Your task to perform on an android device: open chrome and create a bookmark for the current page Image 0: 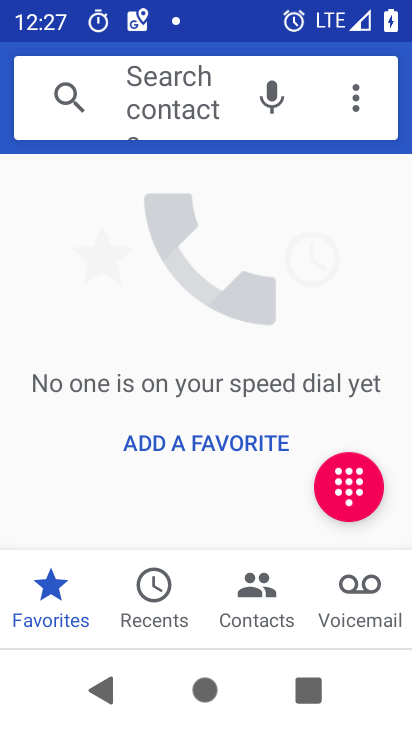
Step 0: press home button
Your task to perform on an android device: open chrome and create a bookmark for the current page Image 1: 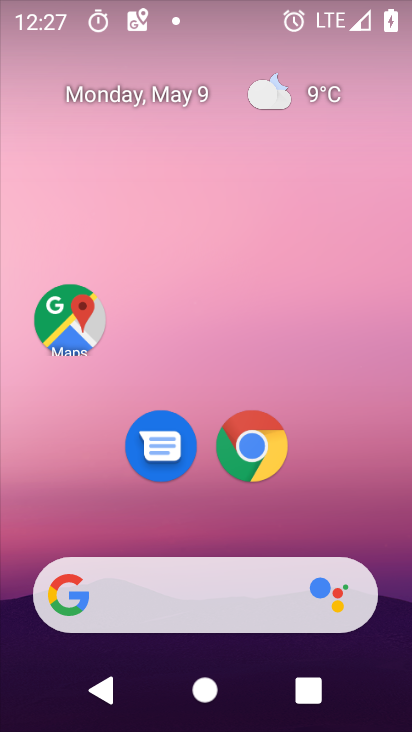
Step 1: click (256, 446)
Your task to perform on an android device: open chrome and create a bookmark for the current page Image 2: 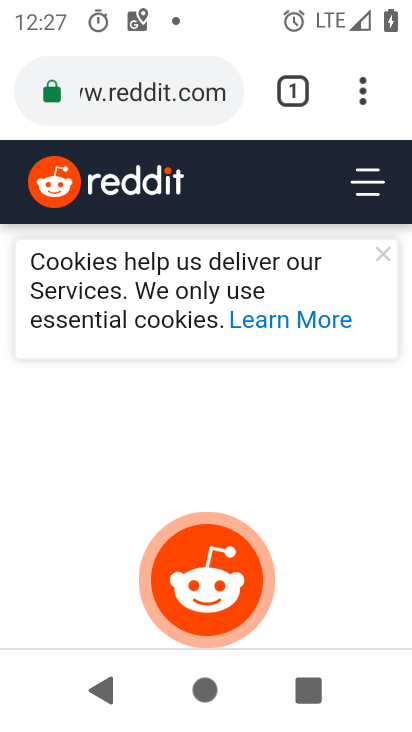
Step 2: click (363, 91)
Your task to perform on an android device: open chrome and create a bookmark for the current page Image 3: 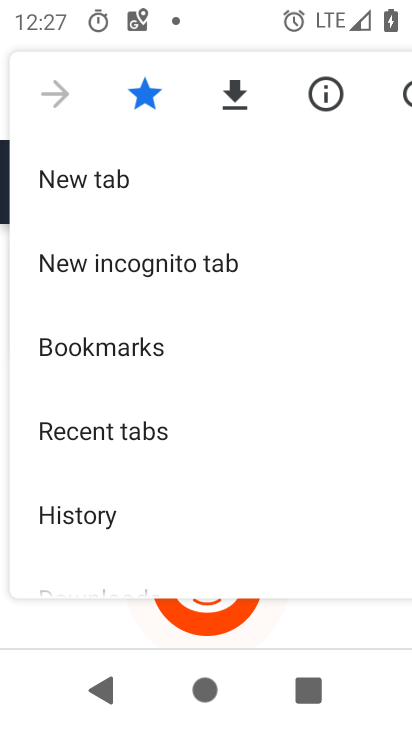
Step 3: task complete